Your task to perform on an android device: Go to calendar. Show me events next week Image 0: 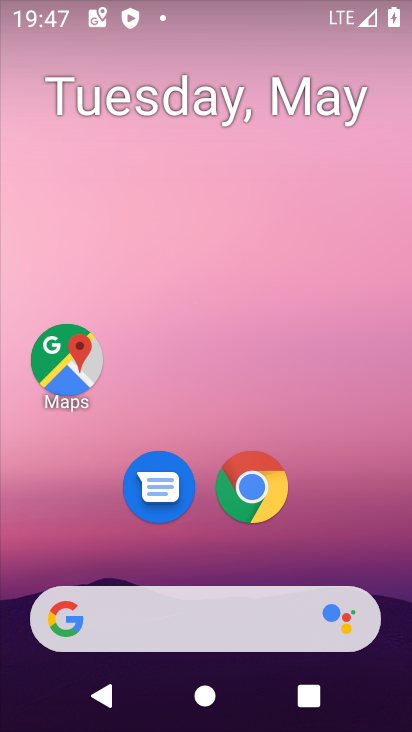
Step 0: drag from (329, 487) to (219, 63)
Your task to perform on an android device: Go to calendar. Show me events next week Image 1: 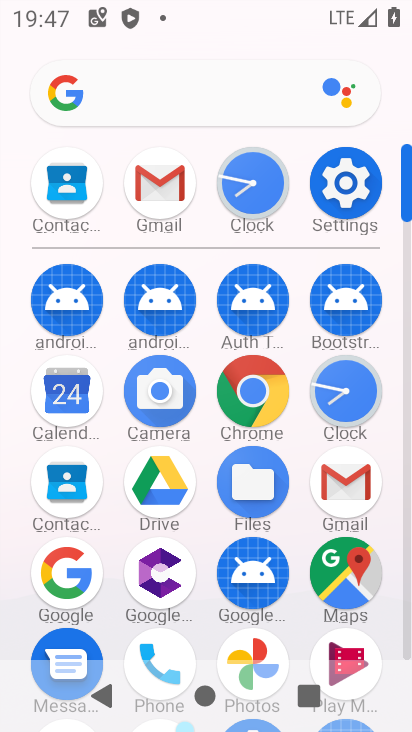
Step 1: click (56, 402)
Your task to perform on an android device: Go to calendar. Show me events next week Image 2: 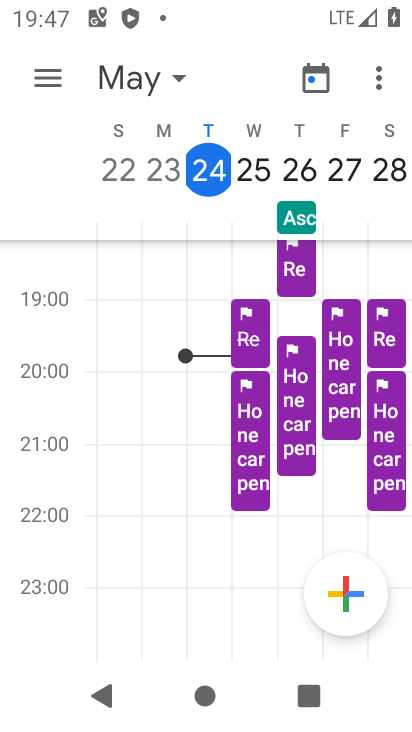
Step 2: click (174, 77)
Your task to perform on an android device: Go to calendar. Show me events next week Image 3: 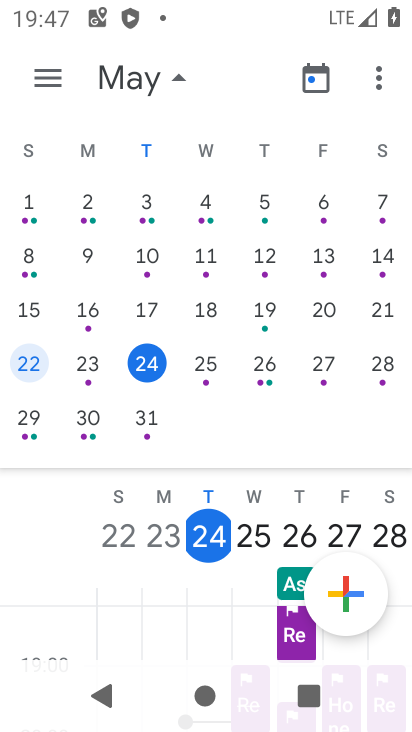
Step 3: click (143, 417)
Your task to perform on an android device: Go to calendar. Show me events next week Image 4: 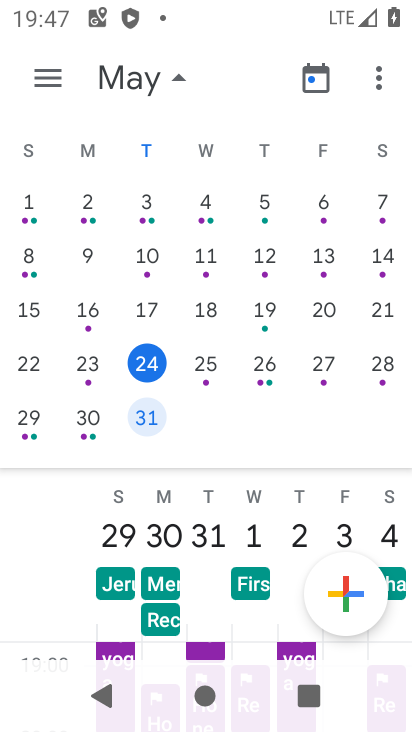
Step 4: task complete